Your task to perform on an android device: Add "razer blade" to the cart on ebay.com, then select checkout. Image 0: 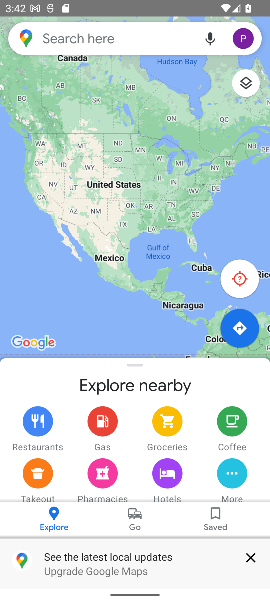
Step 0: press home button
Your task to perform on an android device: Add "razer blade" to the cart on ebay.com, then select checkout. Image 1: 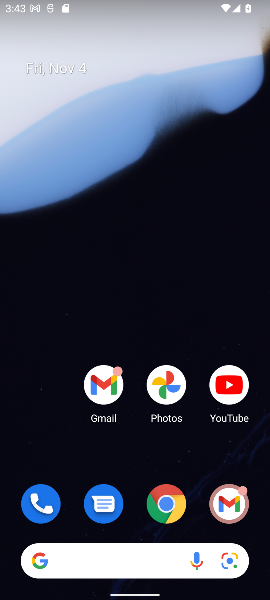
Step 1: click (178, 519)
Your task to perform on an android device: Add "razer blade" to the cart on ebay.com, then select checkout. Image 2: 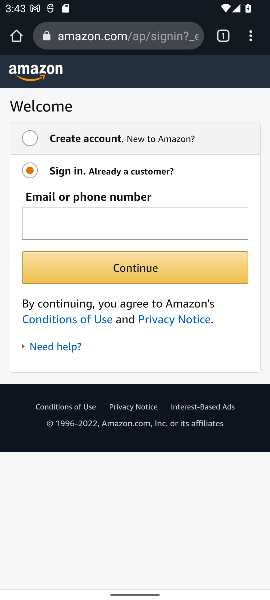
Step 2: click (111, 42)
Your task to perform on an android device: Add "razer blade" to the cart on ebay.com, then select checkout. Image 3: 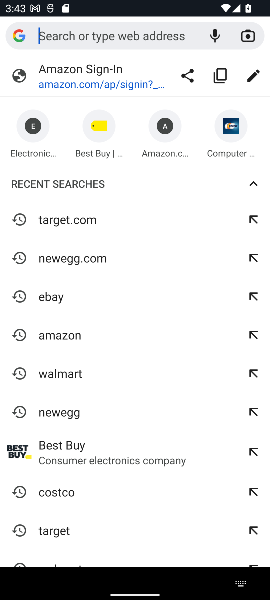
Step 3: click (37, 303)
Your task to perform on an android device: Add "razer blade" to the cart on ebay.com, then select checkout. Image 4: 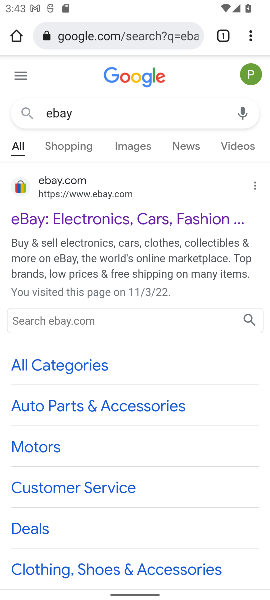
Step 4: click (73, 216)
Your task to perform on an android device: Add "razer blade" to the cart on ebay.com, then select checkout. Image 5: 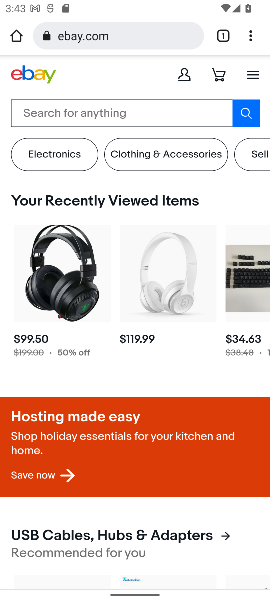
Step 5: click (118, 111)
Your task to perform on an android device: Add "razer blade" to the cart on ebay.com, then select checkout. Image 6: 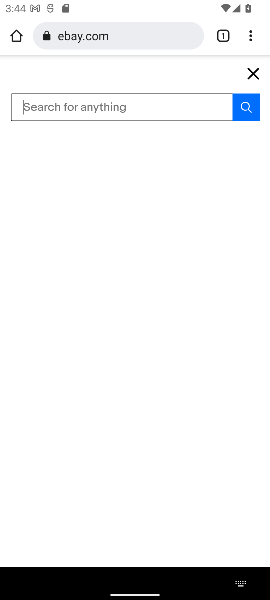
Step 6: type "razer blade"
Your task to perform on an android device: Add "razer blade" to the cart on ebay.com, then select checkout. Image 7: 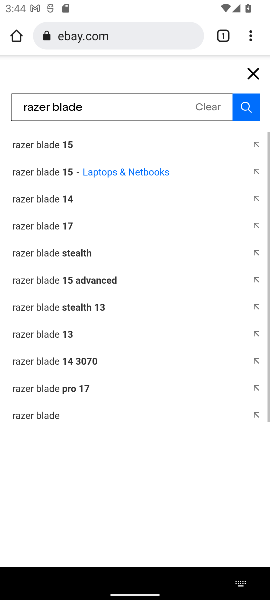
Step 7: click (53, 417)
Your task to perform on an android device: Add "razer blade" to the cart on ebay.com, then select checkout. Image 8: 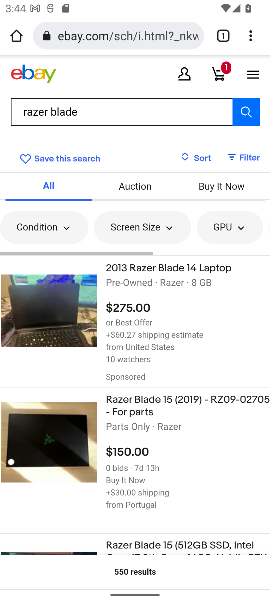
Step 8: click (90, 309)
Your task to perform on an android device: Add "razer blade" to the cart on ebay.com, then select checkout. Image 9: 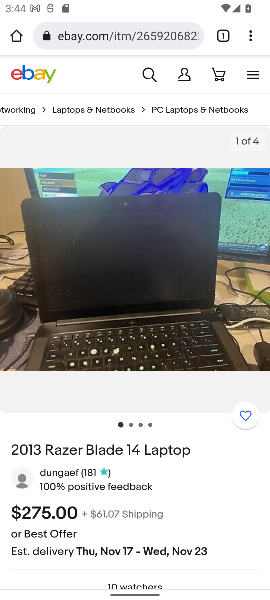
Step 9: drag from (132, 432) to (136, 125)
Your task to perform on an android device: Add "razer blade" to the cart on ebay.com, then select checkout. Image 10: 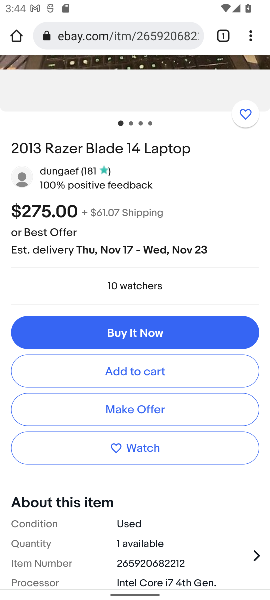
Step 10: click (112, 366)
Your task to perform on an android device: Add "razer blade" to the cart on ebay.com, then select checkout. Image 11: 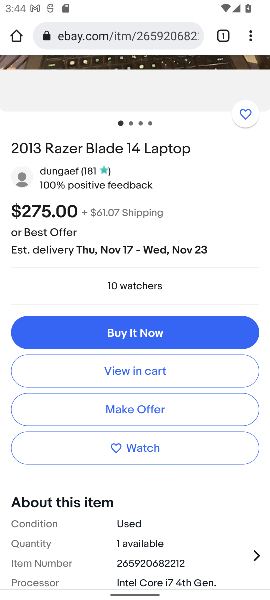
Step 11: click (112, 368)
Your task to perform on an android device: Add "razer blade" to the cart on ebay.com, then select checkout. Image 12: 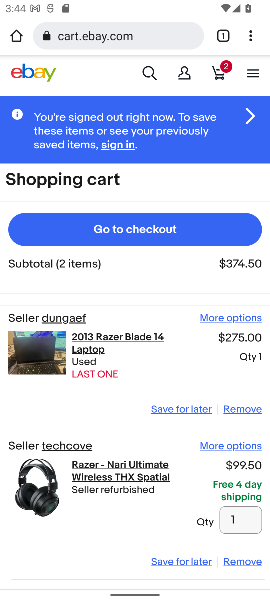
Step 12: click (136, 235)
Your task to perform on an android device: Add "razer blade" to the cart on ebay.com, then select checkout. Image 13: 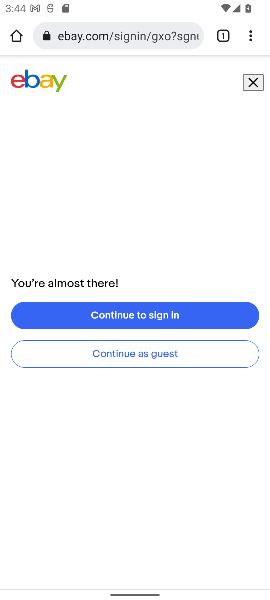
Step 13: task complete